Your task to perform on an android device: Open Yahoo.com Image 0: 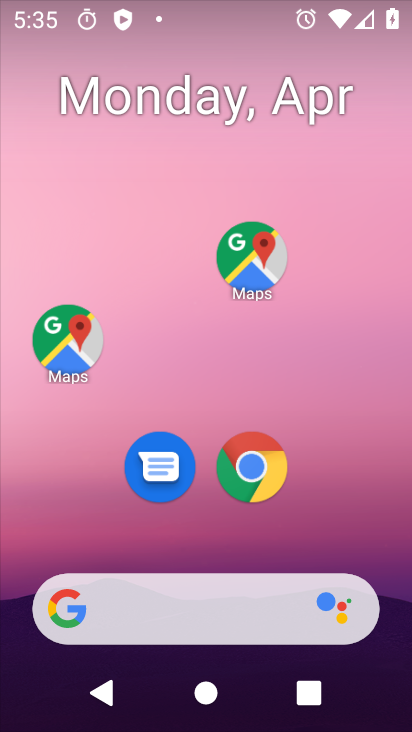
Step 0: drag from (320, 585) to (275, 13)
Your task to perform on an android device: Open Yahoo.com Image 1: 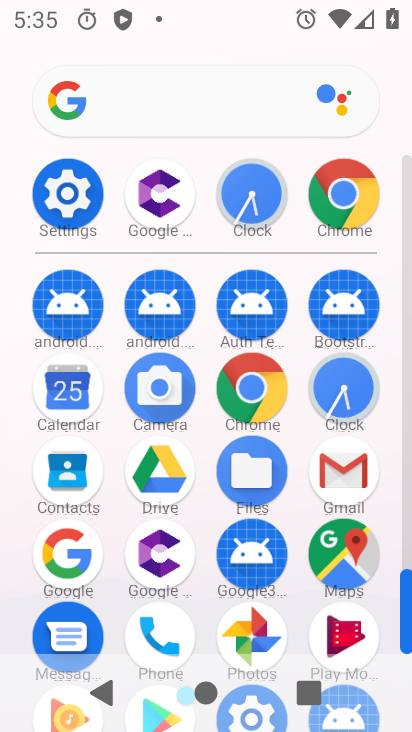
Step 1: click (260, 392)
Your task to perform on an android device: Open Yahoo.com Image 2: 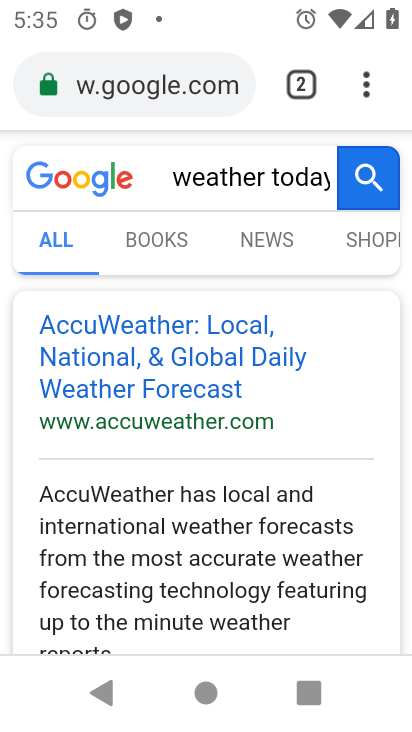
Step 2: click (144, 94)
Your task to perform on an android device: Open Yahoo.com Image 3: 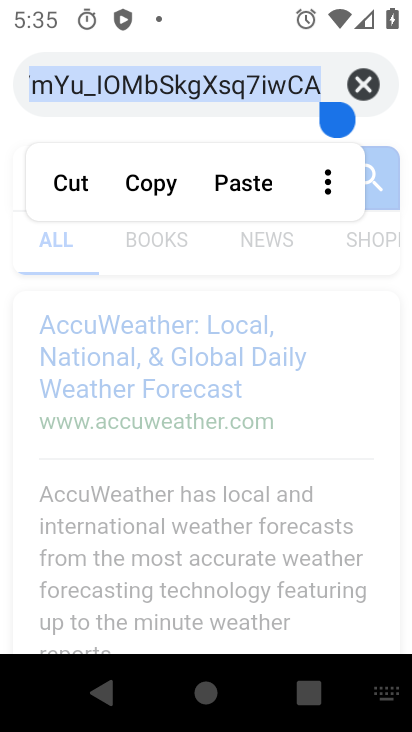
Step 3: click (355, 86)
Your task to perform on an android device: Open Yahoo.com Image 4: 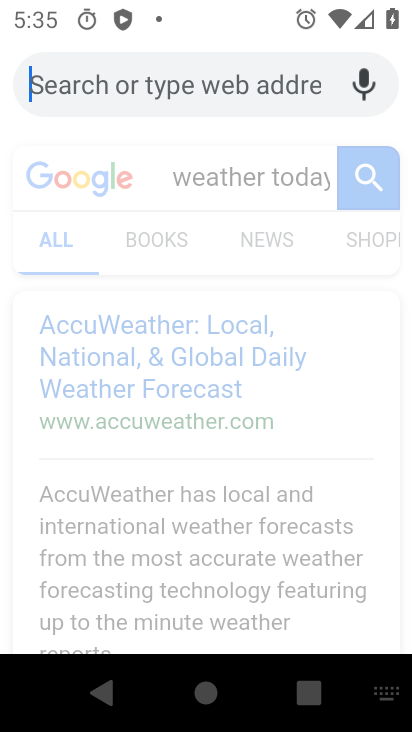
Step 4: type "yahoo.com"
Your task to perform on an android device: Open Yahoo.com Image 5: 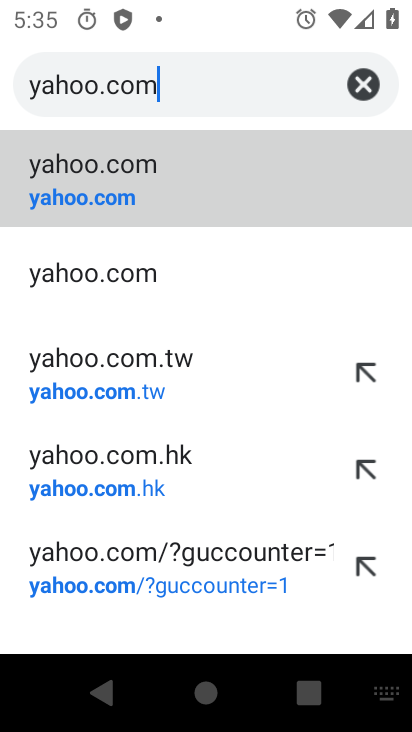
Step 5: click (170, 190)
Your task to perform on an android device: Open Yahoo.com Image 6: 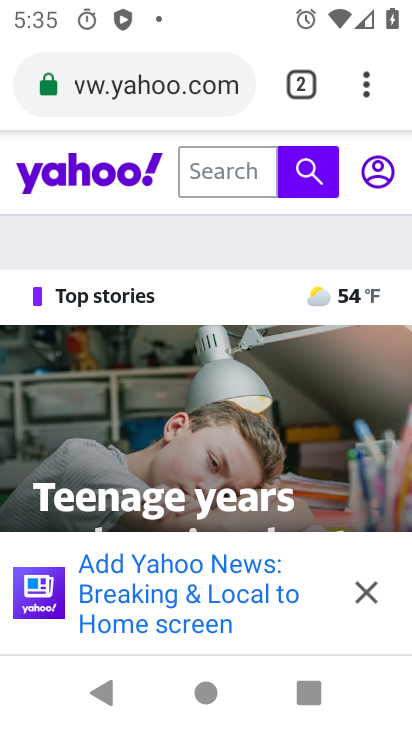
Step 6: task complete